Your task to perform on an android device: turn off airplane mode Image 0: 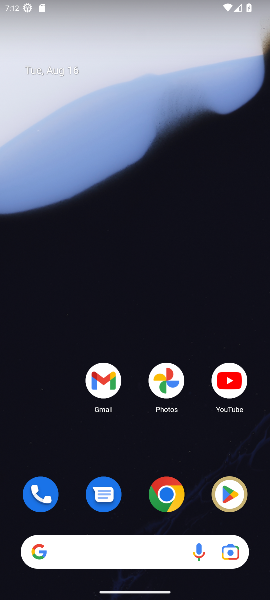
Step 0: drag from (89, 344) to (102, 112)
Your task to perform on an android device: turn off airplane mode Image 1: 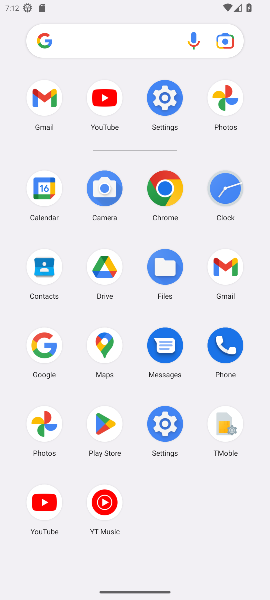
Step 1: click (161, 429)
Your task to perform on an android device: turn off airplane mode Image 2: 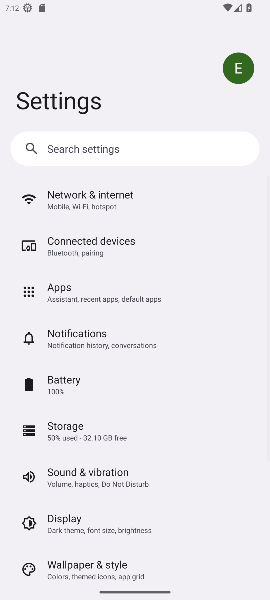
Step 2: task complete